Your task to perform on an android device: open app "VLC for Android" (install if not already installed) Image 0: 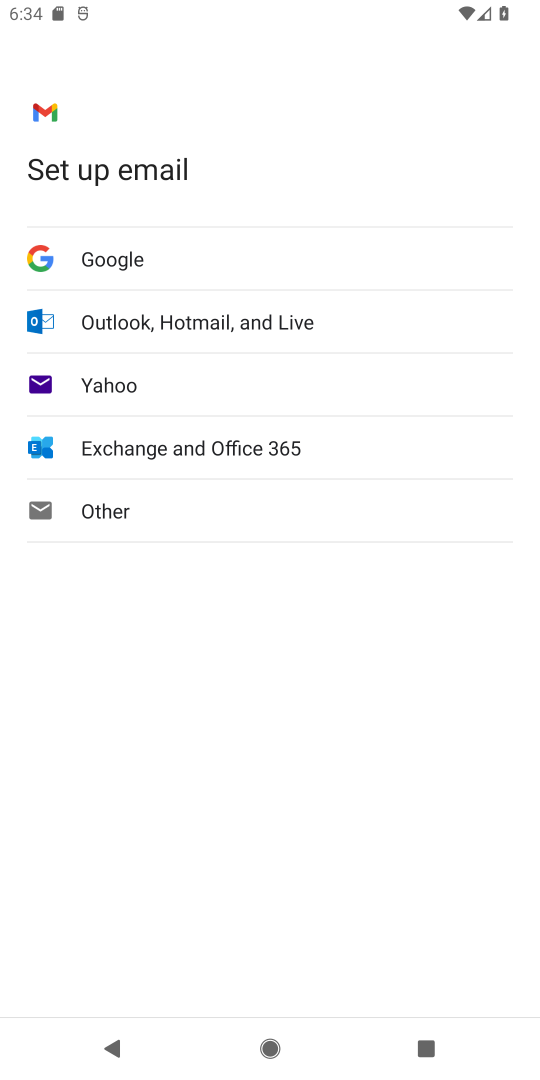
Step 0: press home button
Your task to perform on an android device: open app "VLC for Android" (install if not already installed) Image 1: 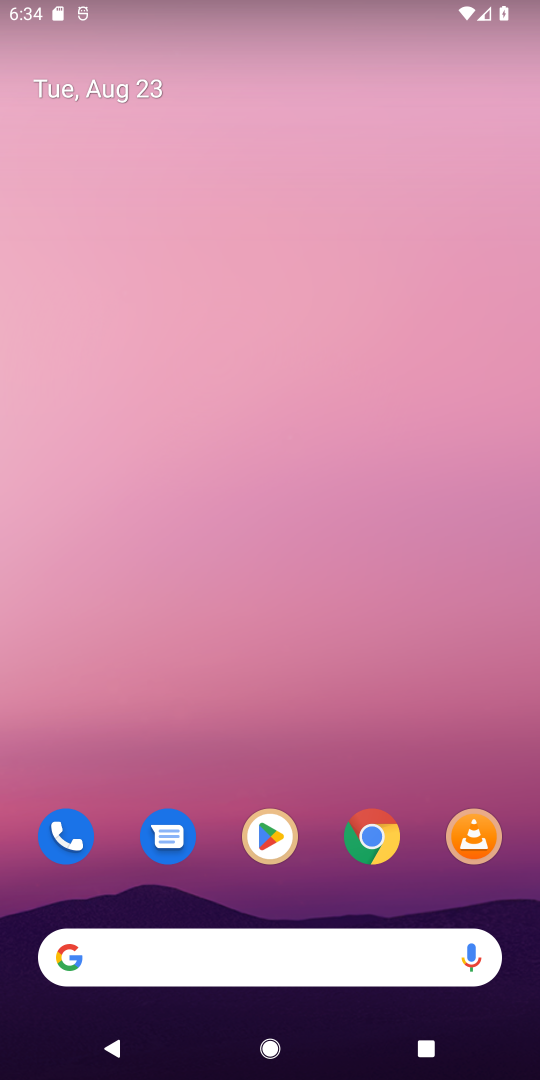
Step 1: click (269, 833)
Your task to perform on an android device: open app "VLC for Android" (install if not already installed) Image 2: 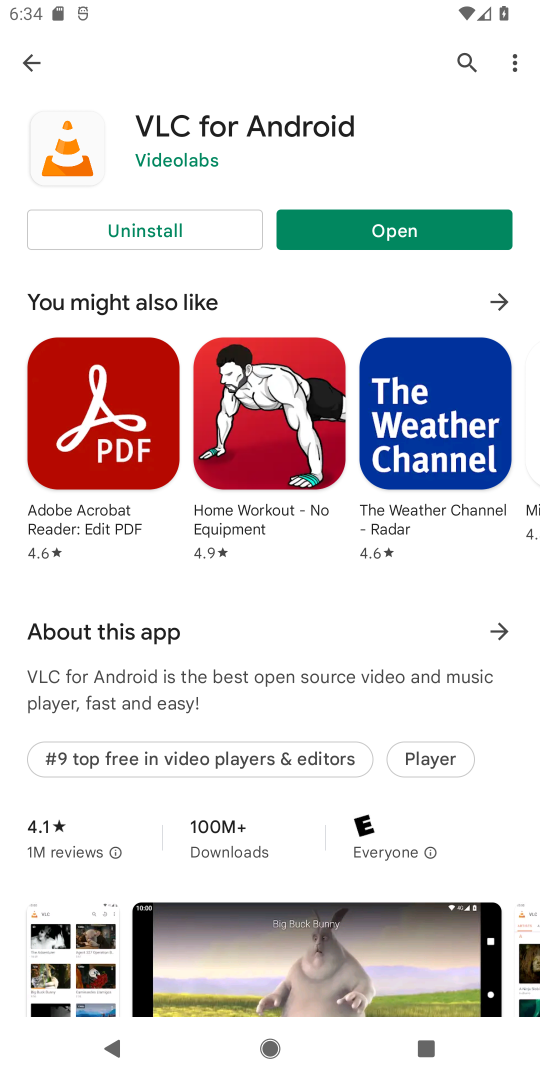
Step 2: click (460, 51)
Your task to perform on an android device: open app "VLC for Android" (install if not already installed) Image 3: 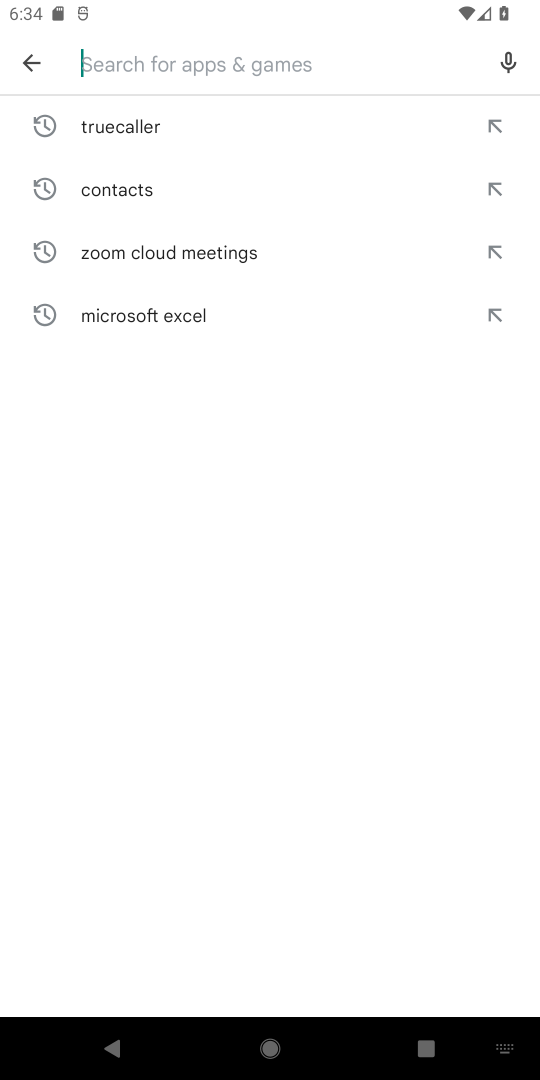
Step 3: type "VLC for Android"
Your task to perform on an android device: open app "VLC for Android" (install if not already installed) Image 4: 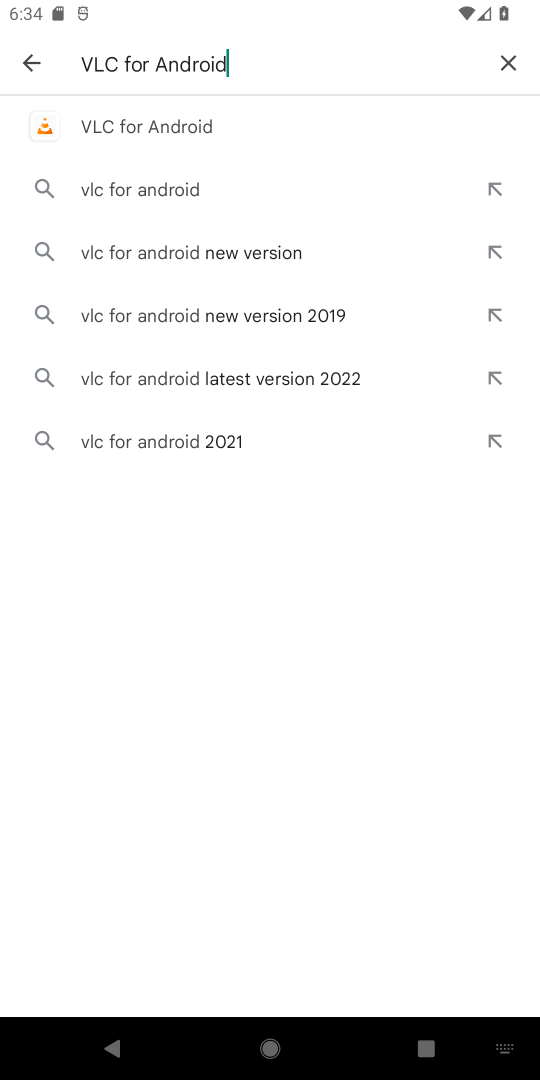
Step 4: click (150, 120)
Your task to perform on an android device: open app "VLC for Android" (install if not already installed) Image 5: 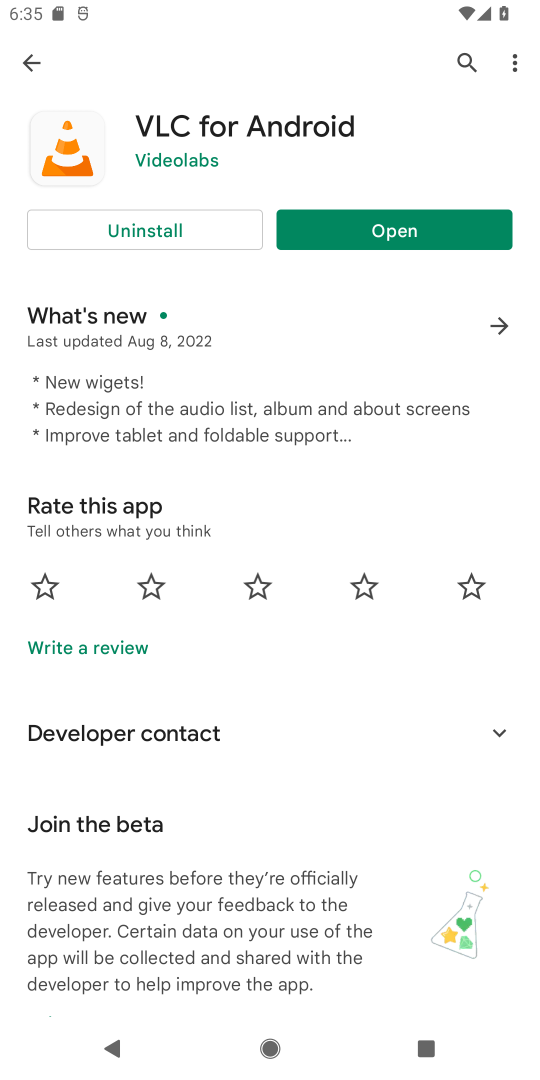
Step 5: task complete